Your task to perform on an android device: Go to internet settings Image 0: 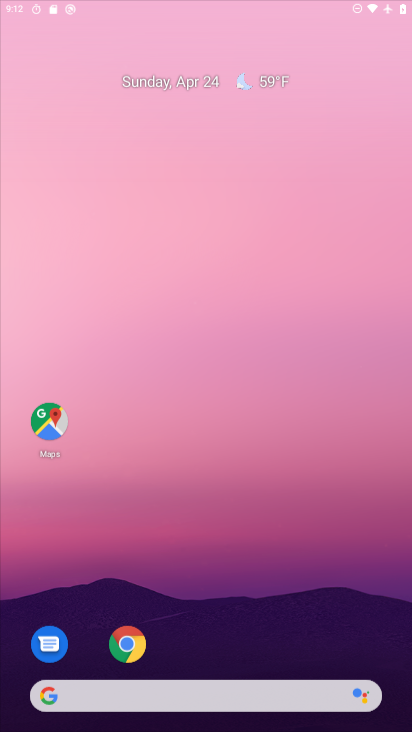
Step 0: drag from (206, 660) to (224, 22)
Your task to perform on an android device: Go to internet settings Image 1: 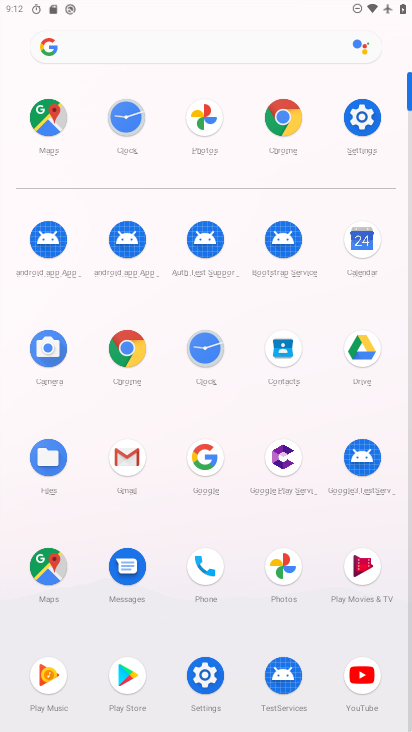
Step 1: click (281, 559)
Your task to perform on an android device: Go to internet settings Image 2: 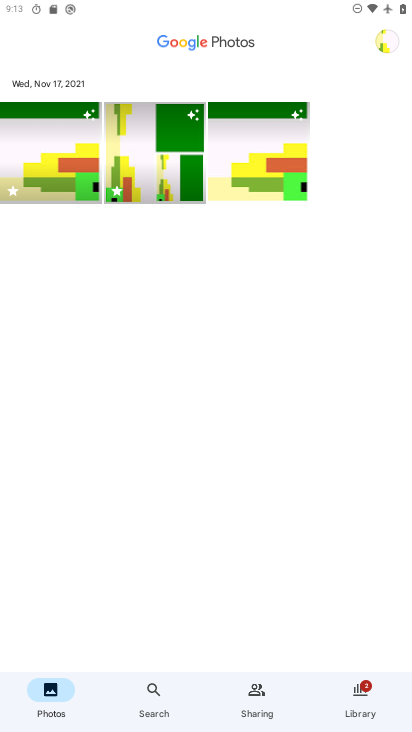
Step 2: press home button
Your task to perform on an android device: Go to internet settings Image 3: 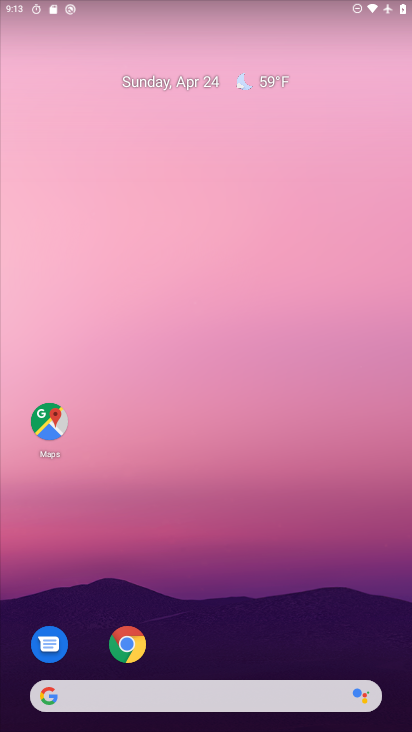
Step 3: drag from (217, 559) to (243, 51)
Your task to perform on an android device: Go to internet settings Image 4: 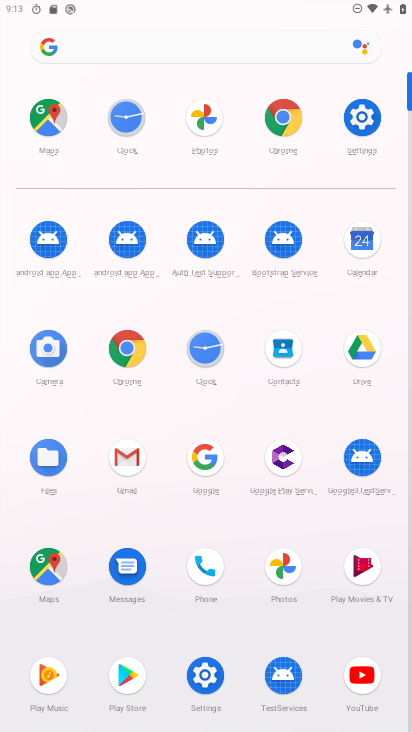
Step 4: click (360, 111)
Your task to perform on an android device: Go to internet settings Image 5: 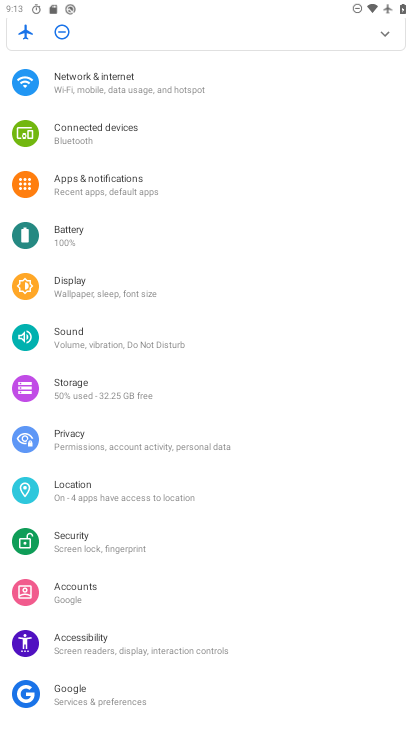
Step 5: click (117, 90)
Your task to perform on an android device: Go to internet settings Image 6: 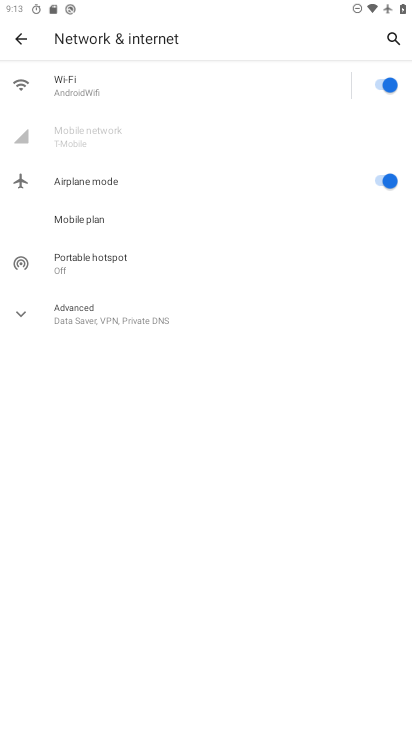
Step 6: click (20, 311)
Your task to perform on an android device: Go to internet settings Image 7: 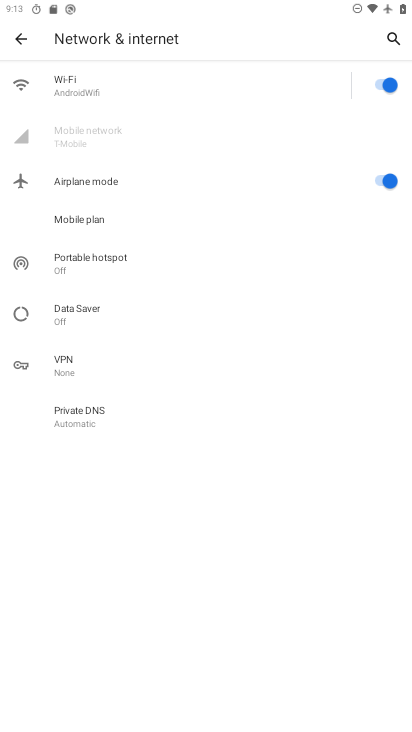
Step 7: task complete